Your task to perform on an android device: What's the weather? Image 0: 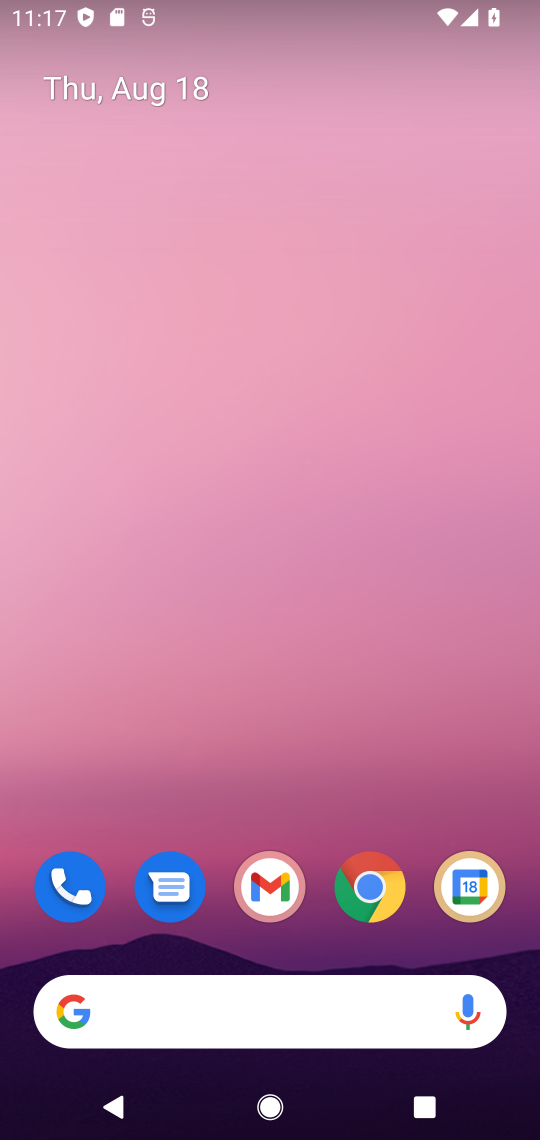
Step 0: click (113, 985)
Your task to perform on an android device: What's the weather? Image 1: 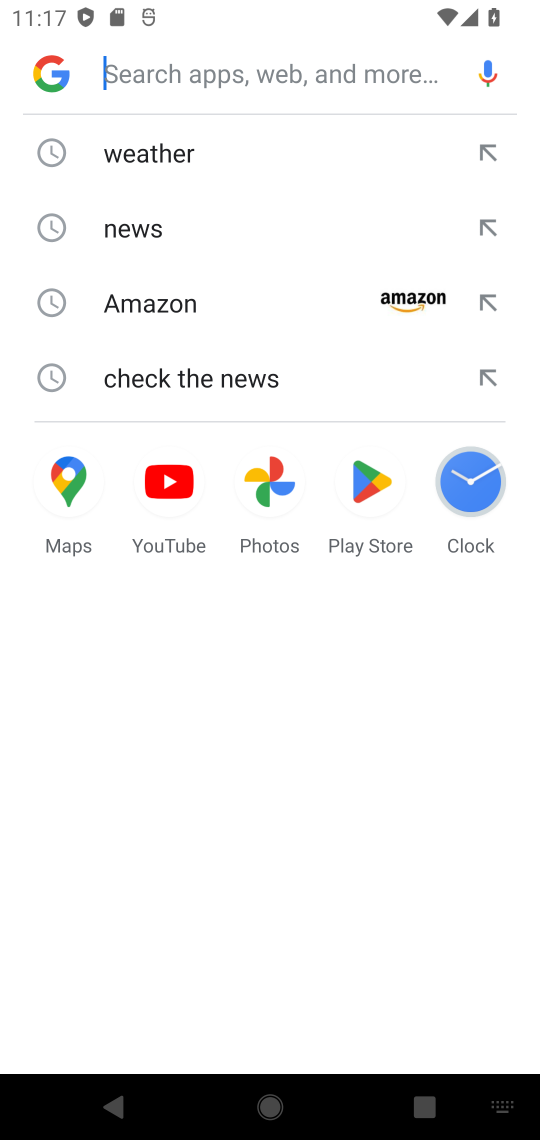
Step 1: type "What's the weather?"
Your task to perform on an android device: What's the weather? Image 2: 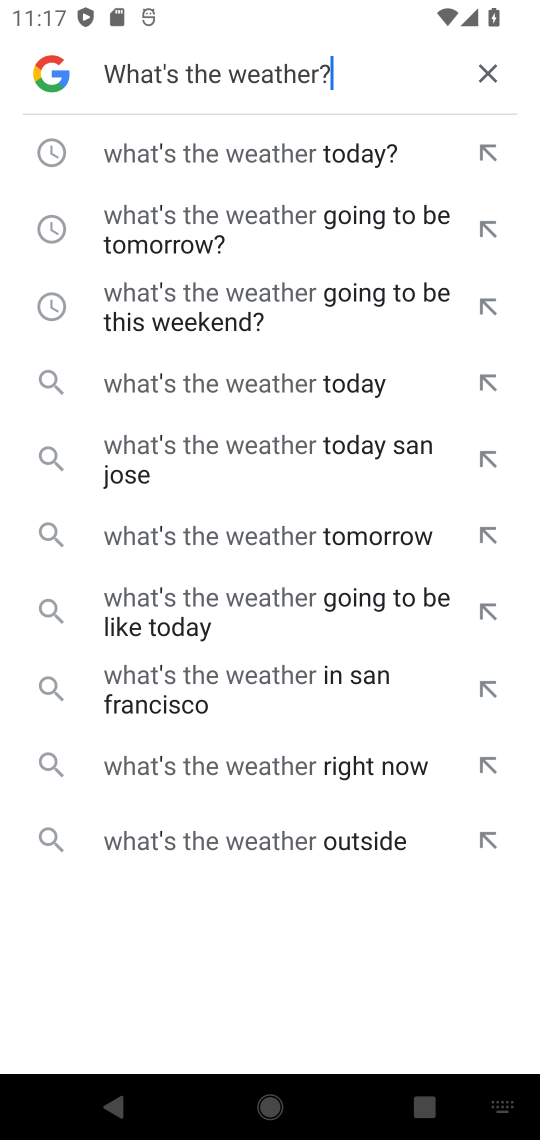
Step 2: type ""
Your task to perform on an android device: What's the weather? Image 3: 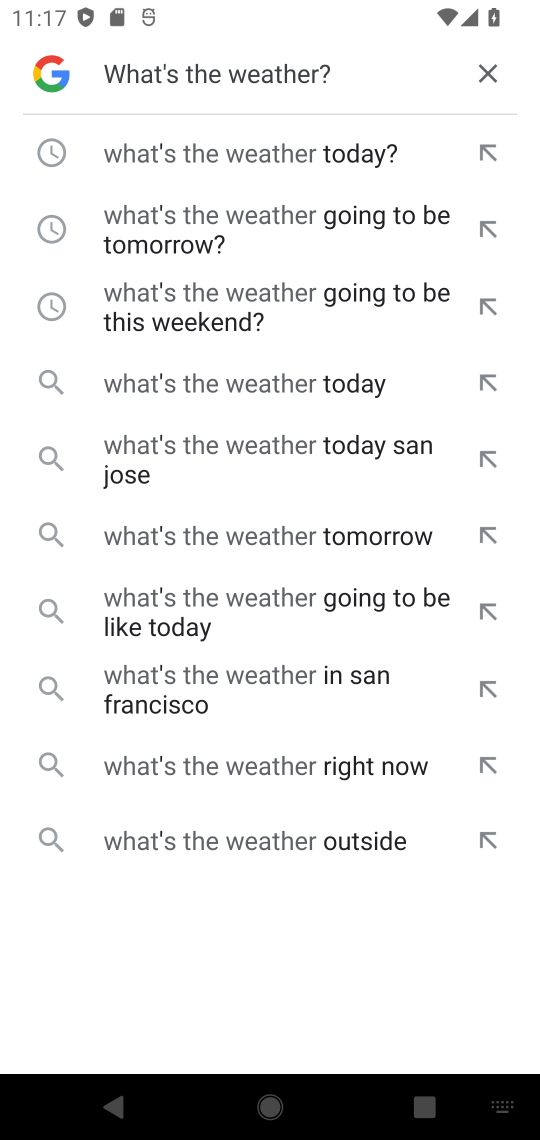
Step 3: type ""
Your task to perform on an android device: What's the weather? Image 4: 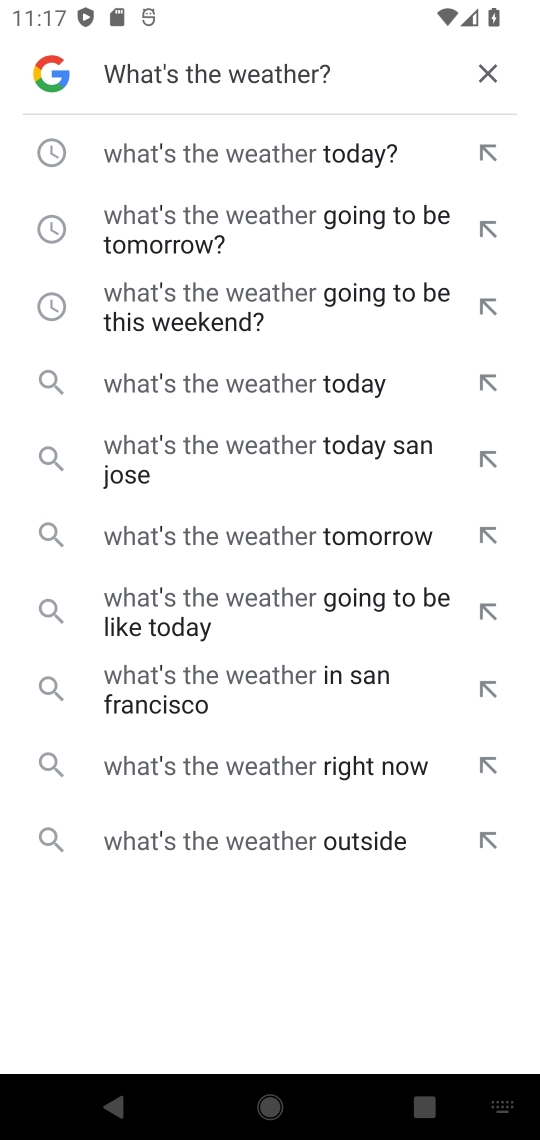
Step 4: task complete